Your task to perform on an android device: Go to internet settings Image 0: 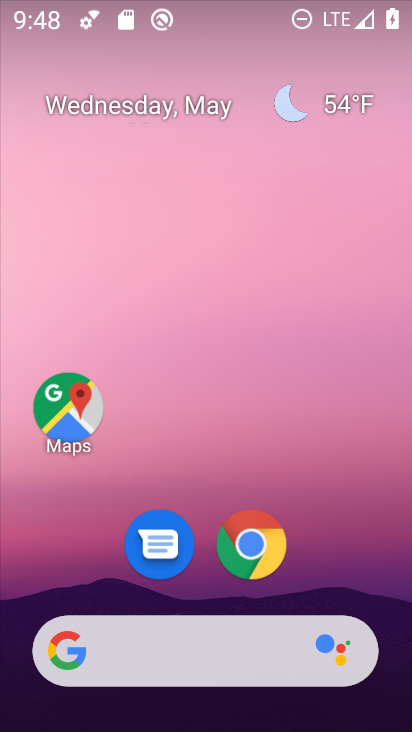
Step 0: drag from (218, 580) to (296, 28)
Your task to perform on an android device: Go to internet settings Image 1: 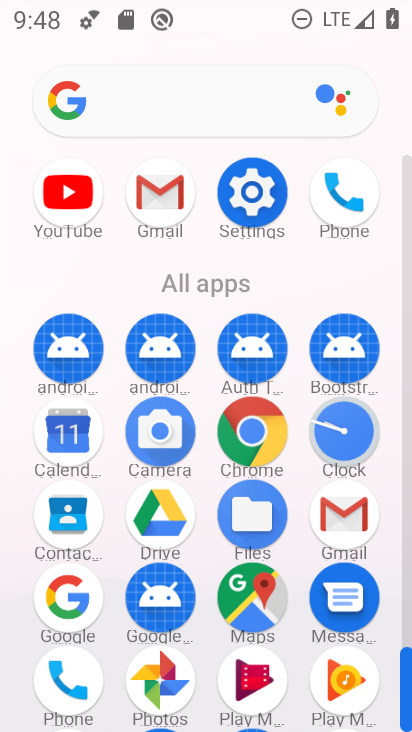
Step 1: click (265, 171)
Your task to perform on an android device: Go to internet settings Image 2: 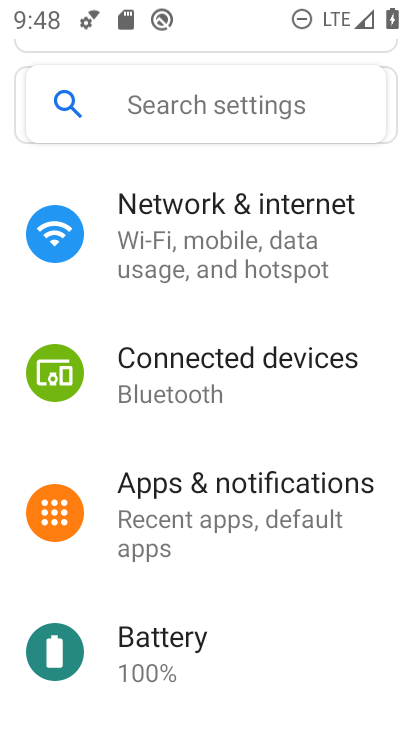
Step 2: click (235, 208)
Your task to perform on an android device: Go to internet settings Image 3: 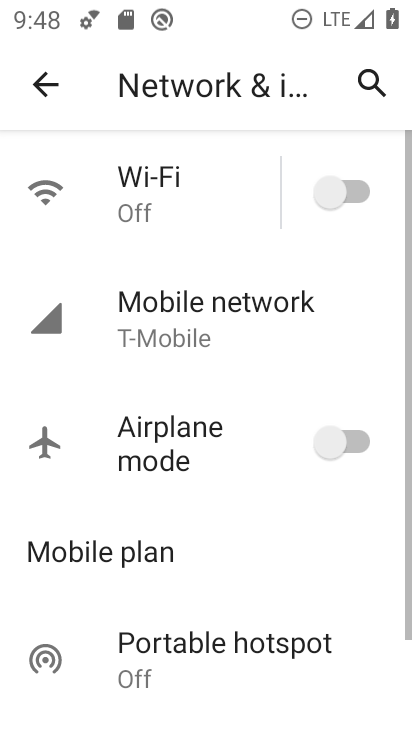
Step 3: task complete